Your task to perform on an android device: turn on location history Image 0: 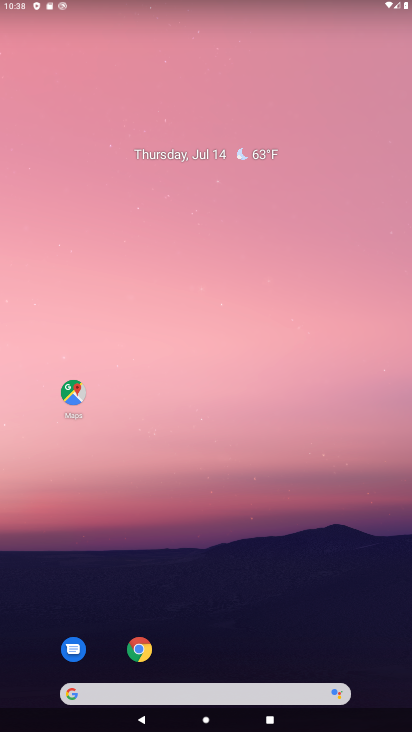
Step 0: drag from (280, 570) to (291, 7)
Your task to perform on an android device: turn on location history Image 1: 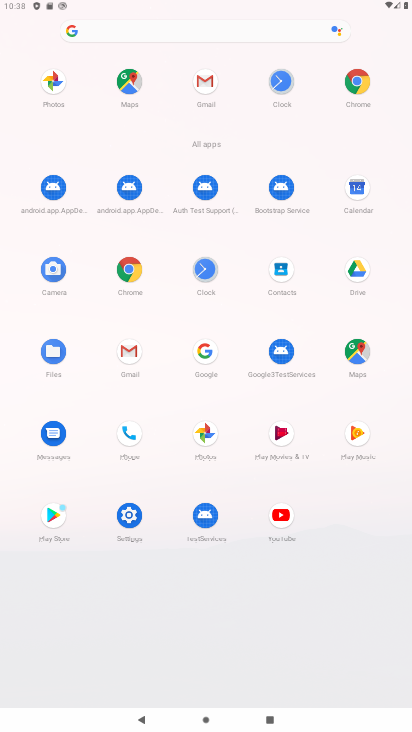
Step 1: click (138, 512)
Your task to perform on an android device: turn on location history Image 2: 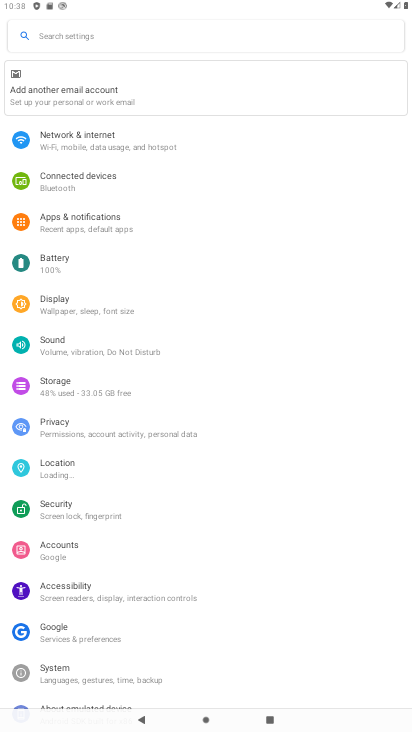
Step 2: click (68, 466)
Your task to perform on an android device: turn on location history Image 3: 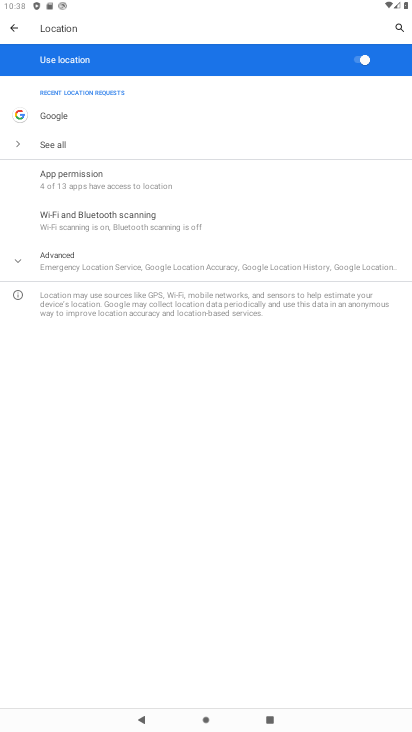
Step 3: task complete